Your task to perform on an android device: What is the news today? Image 0: 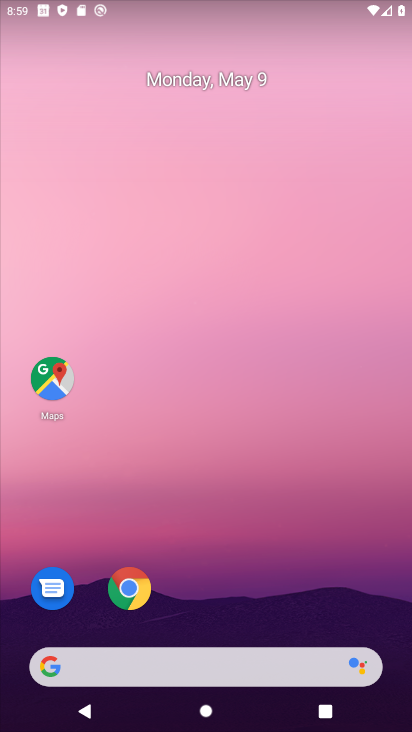
Step 0: drag from (258, 626) to (257, 54)
Your task to perform on an android device: What is the news today? Image 1: 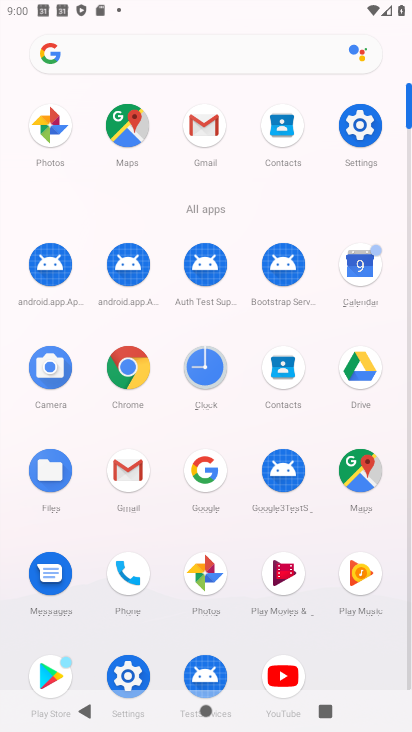
Step 1: task complete